Your task to perform on an android device: Open ESPN.com Image 0: 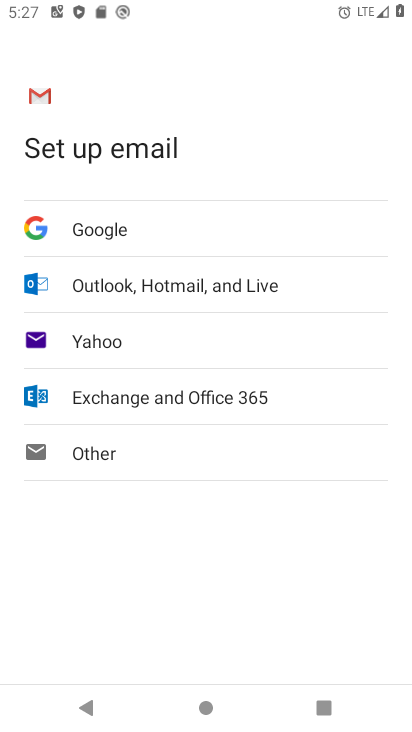
Step 0: press home button
Your task to perform on an android device: Open ESPN.com Image 1: 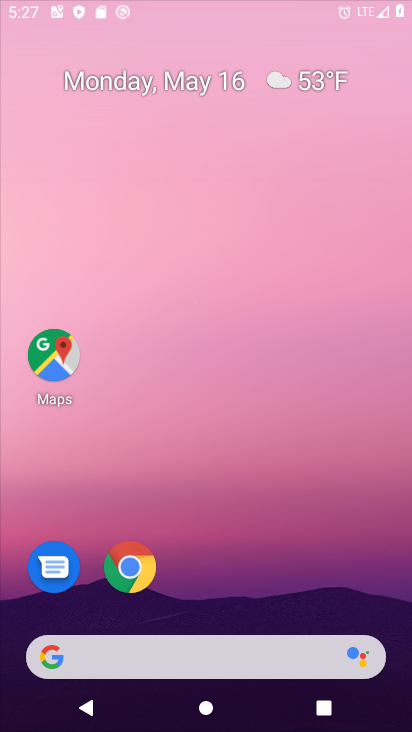
Step 1: drag from (240, 684) to (397, 3)
Your task to perform on an android device: Open ESPN.com Image 2: 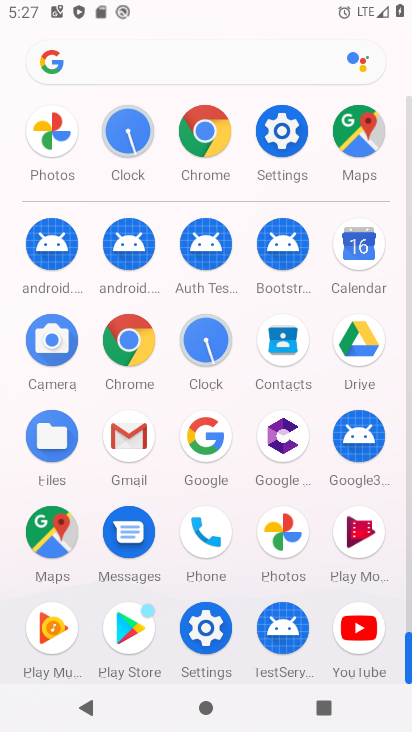
Step 2: click (130, 339)
Your task to perform on an android device: Open ESPN.com Image 3: 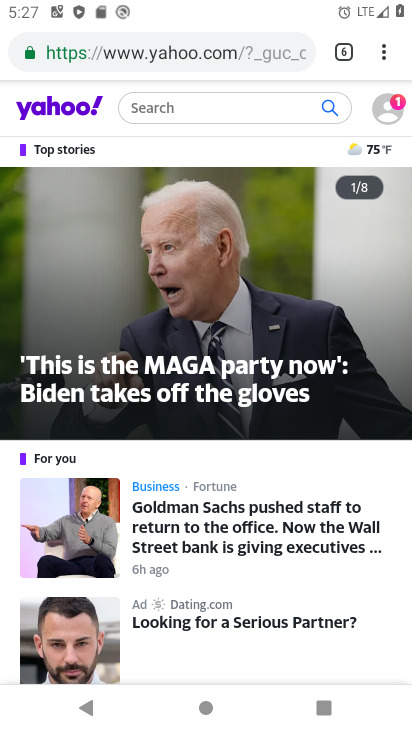
Step 3: click (381, 50)
Your task to perform on an android device: Open ESPN.com Image 4: 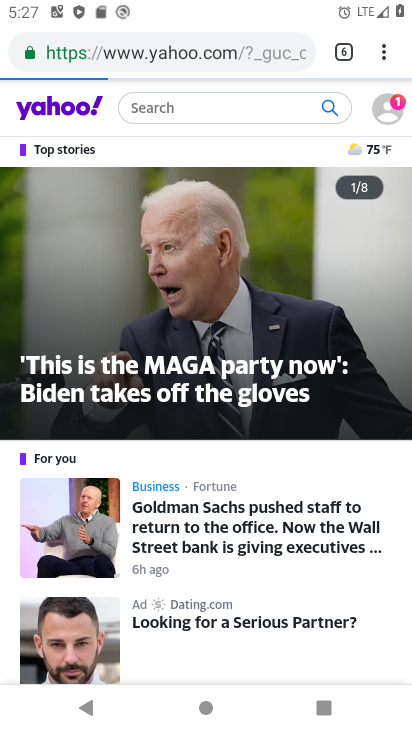
Step 4: click (381, 50)
Your task to perform on an android device: Open ESPN.com Image 5: 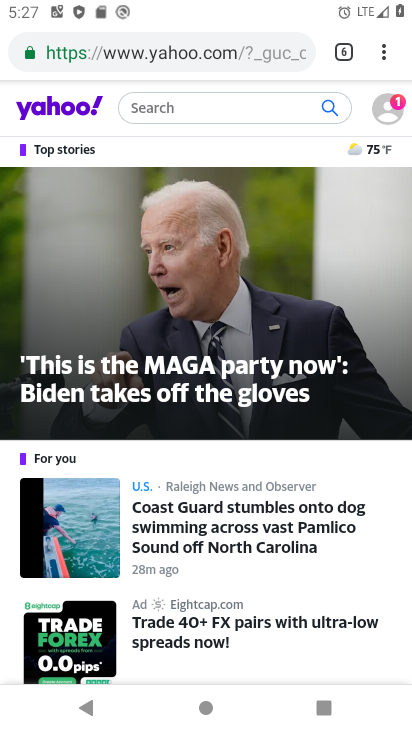
Step 5: click (154, 48)
Your task to perform on an android device: Open ESPN.com Image 6: 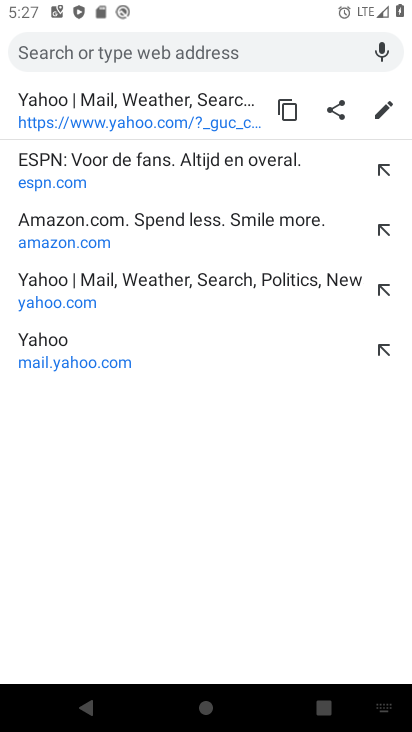
Step 6: click (137, 180)
Your task to perform on an android device: Open ESPN.com Image 7: 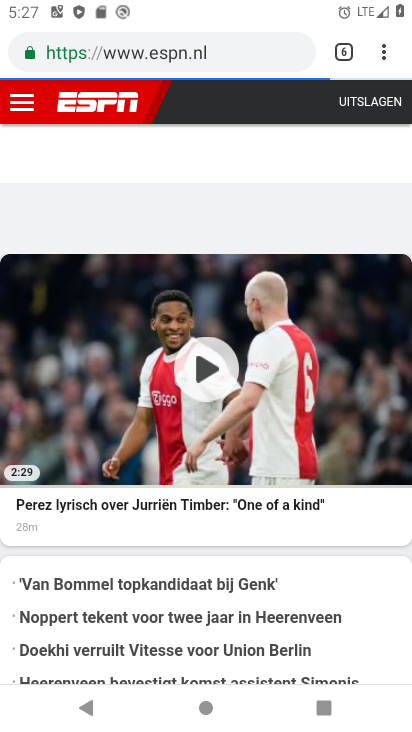
Step 7: task complete